Your task to perform on an android device: open app "ColorNote Notepad Notes" (install if not already installed) and enter user name: "unbridled@gmail.com" and password: "regularly" Image 0: 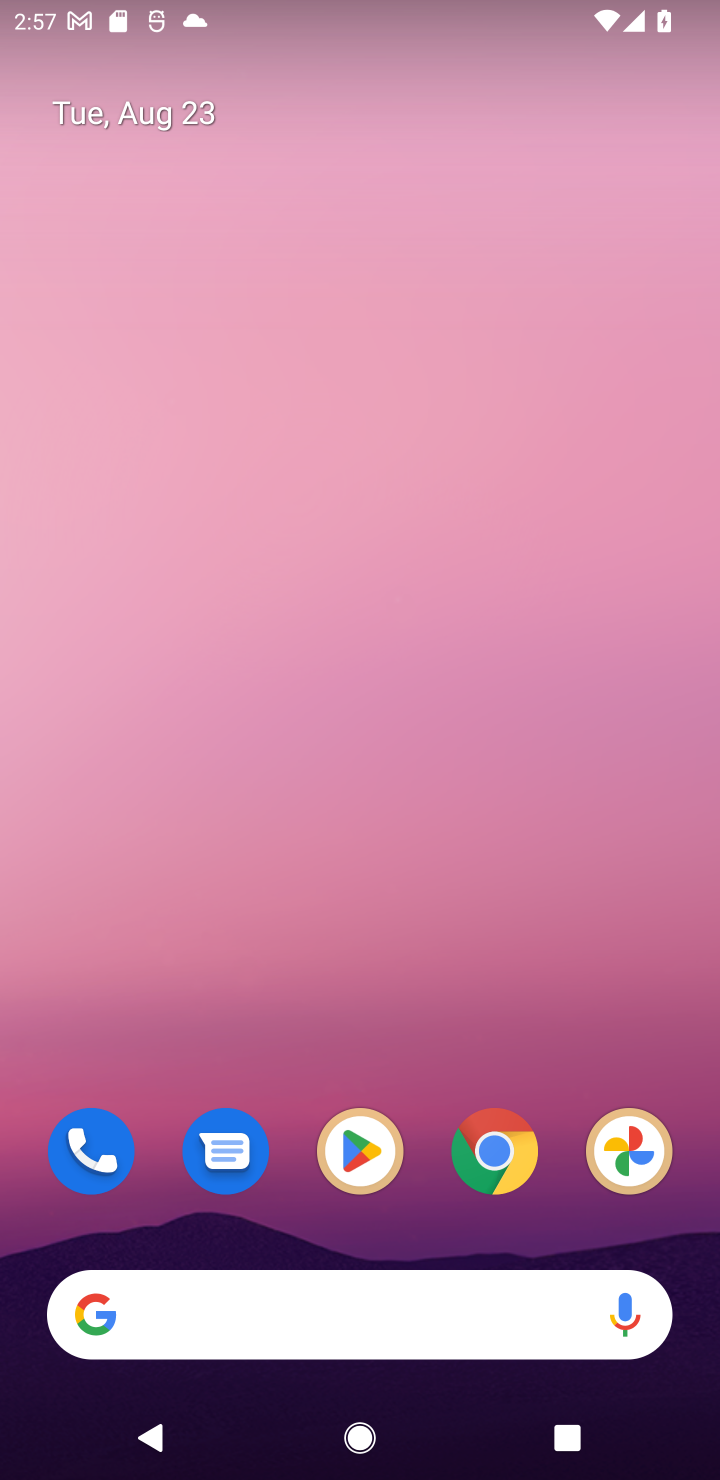
Step 0: click (357, 1156)
Your task to perform on an android device: open app "ColorNote Notepad Notes" (install if not already installed) and enter user name: "unbridled@gmail.com" and password: "regularly" Image 1: 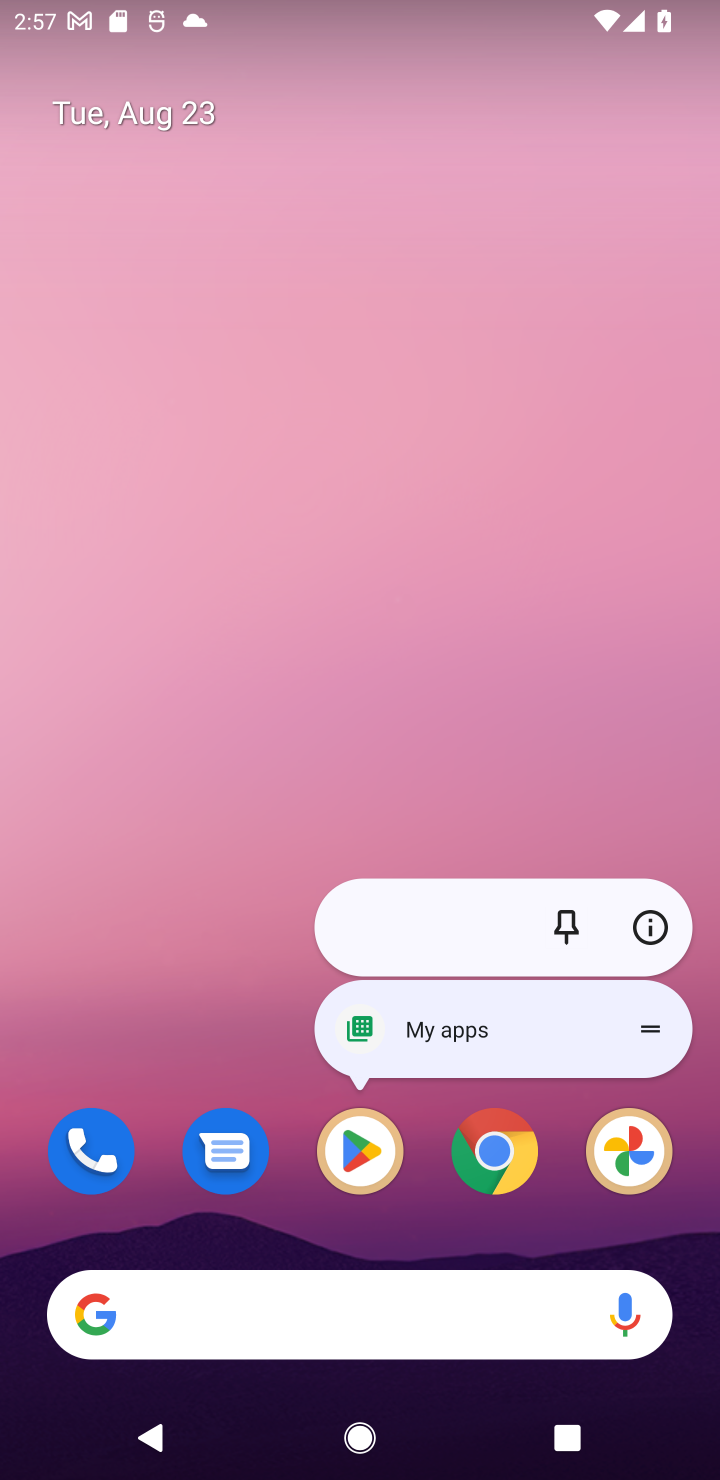
Step 1: click (357, 1156)
Your task to perform on an android device: open app "ColorNote Notepad Notes" (install if not already installed) and enter user name: "unbridled@gmail.com" and password: "regularly" Image 2: 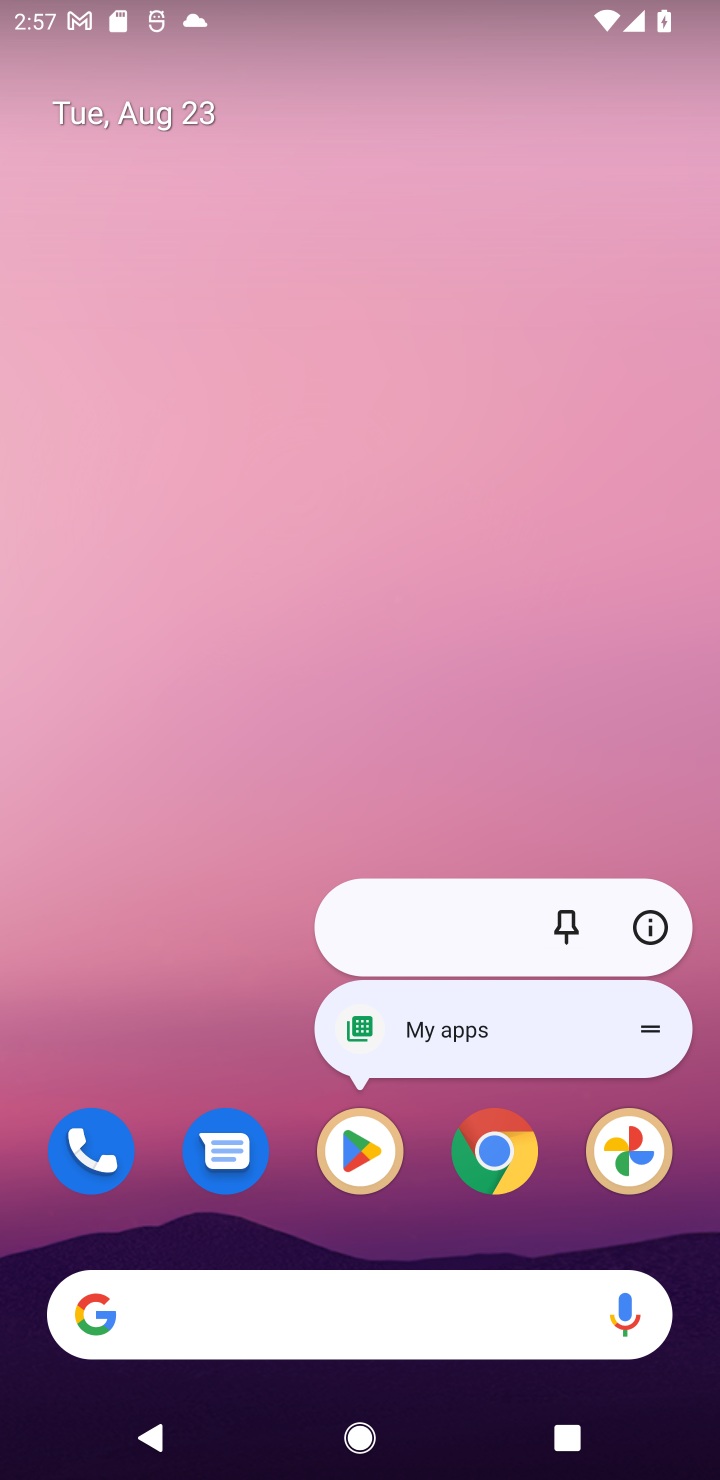
Step 2: click (357, 1160)
Your task to perform on an android device: open app "ColorNote Notepad Notes" (install if not already installed) and enter user name: "unbridled@gmail.com" and password: "regularly" Image 3: 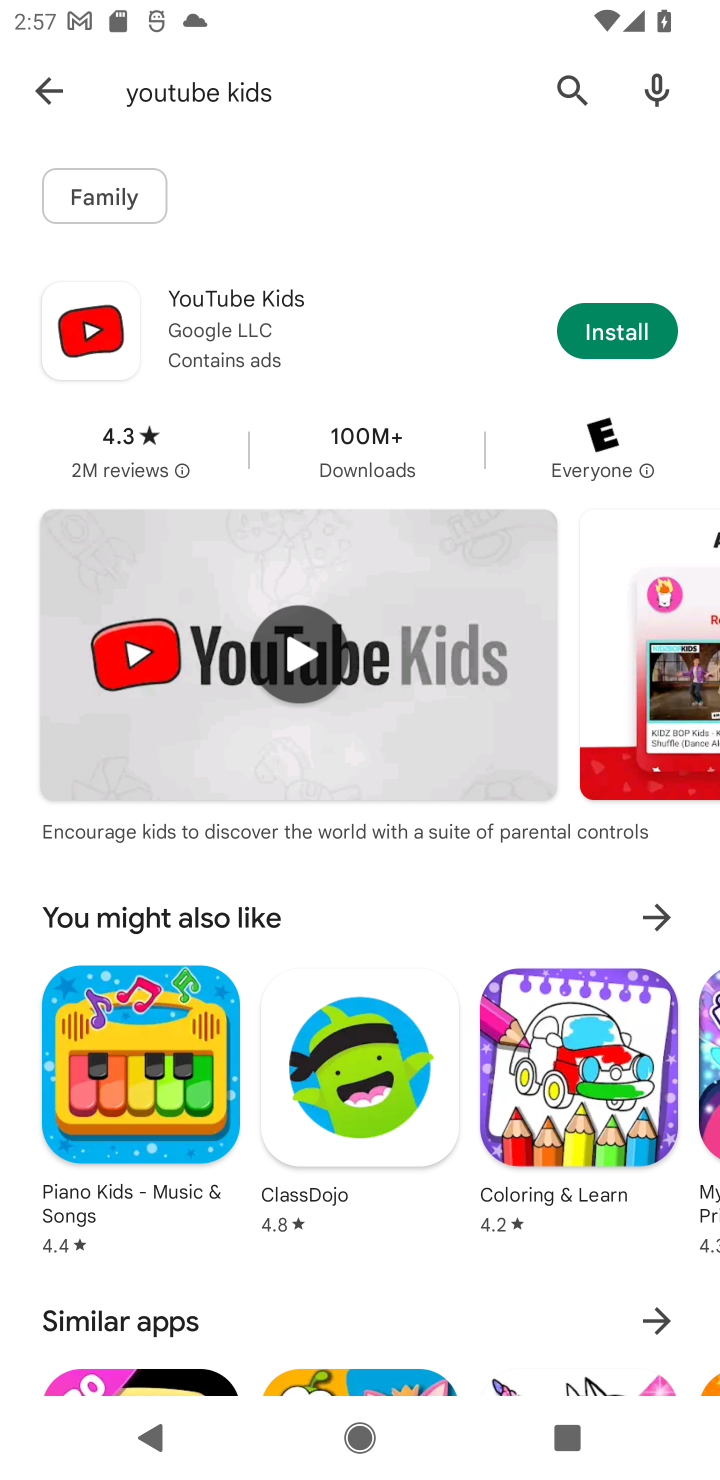
Step 3: click (572, 88)
Your task to perform on an android device: open app "ColorNote Notepad Notes" (install if not already installed) and enter user name: "unbridled@gmail.com" and password: "regularly" Image 4: 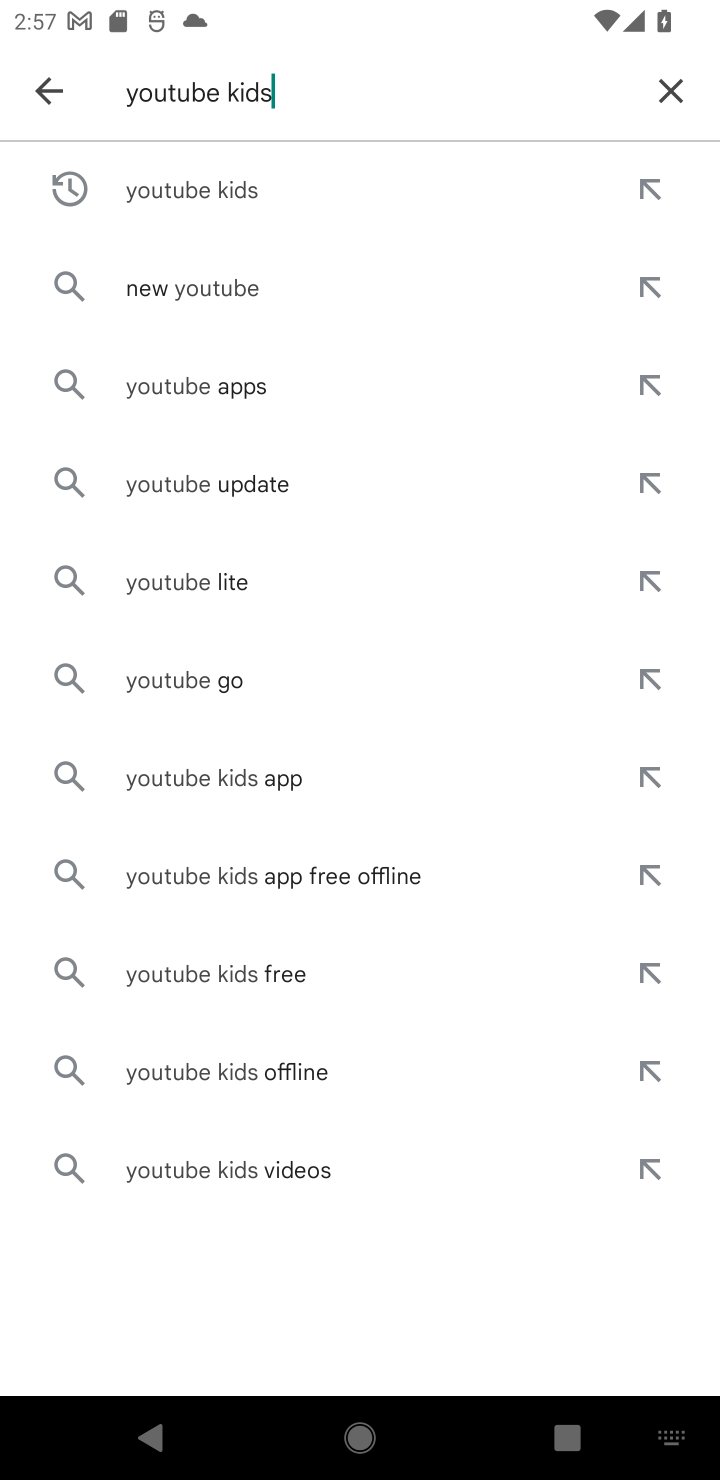
Step 4: click (664, 86)
Your task to perform on an android device: open app "ColorNote Notepad Notes" (install if not already installed) and enter user name: "unbridled@gmail.com" and password: "regularly" Image 5: 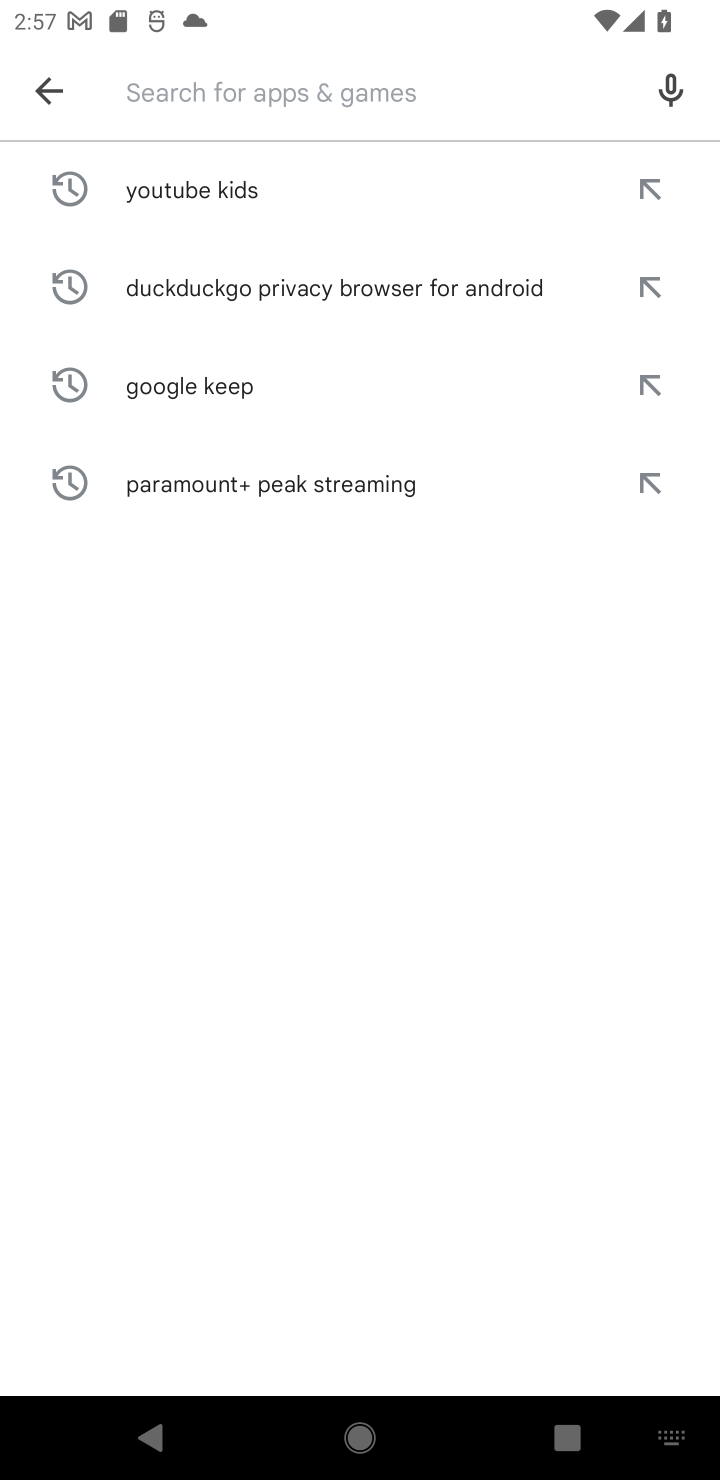
Step 5: type "ColorNote Notepad Notes"
Your task to perform on an android device: open app "ColorNote Notepad Notes" (install if not already installed) and enter user name: "unbridled@gmail.com" and password: "regularly" Image 6: 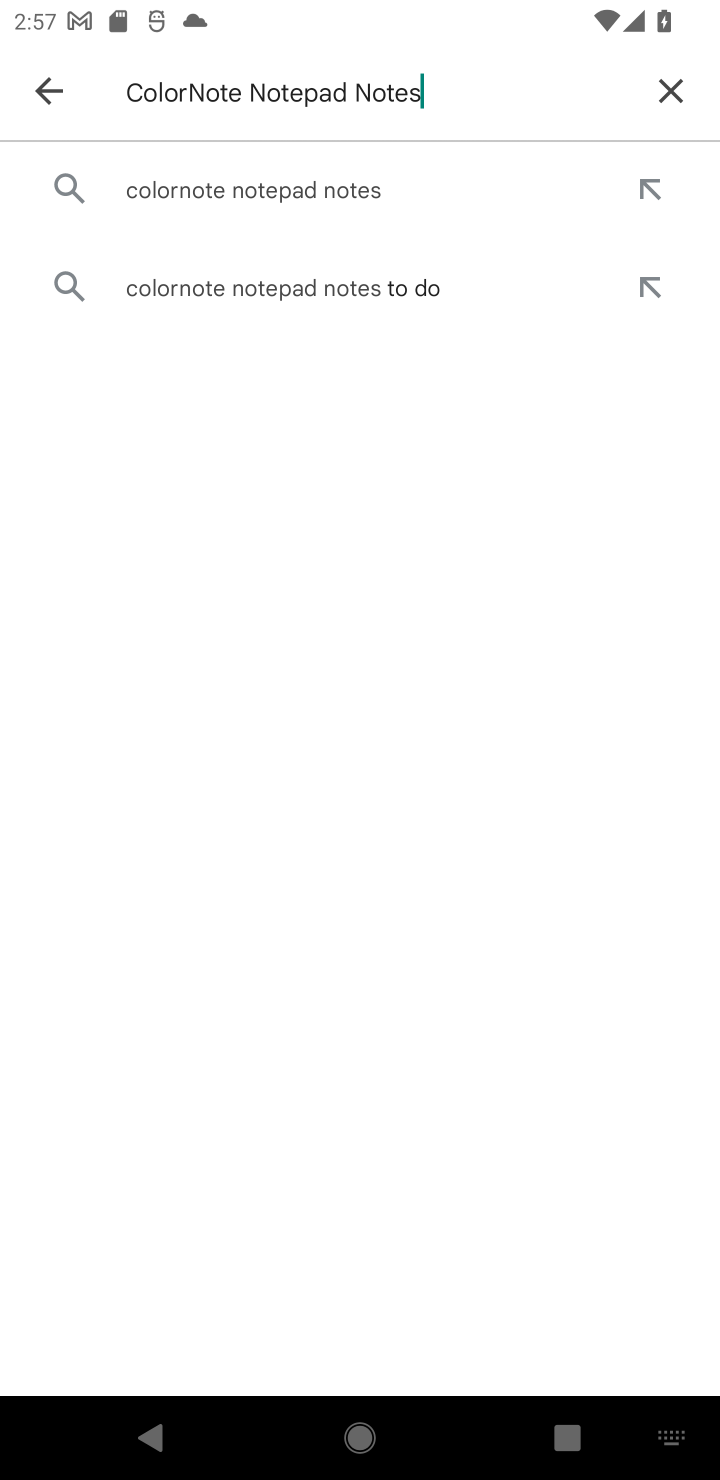
Step 6: click (213, 186)
Your task to perform on an android device: open app "ColorNote Notepad Notes" (install if not already installed) and enter user name: "unbridled@gmail.com" and password: "regularly" Image 7: 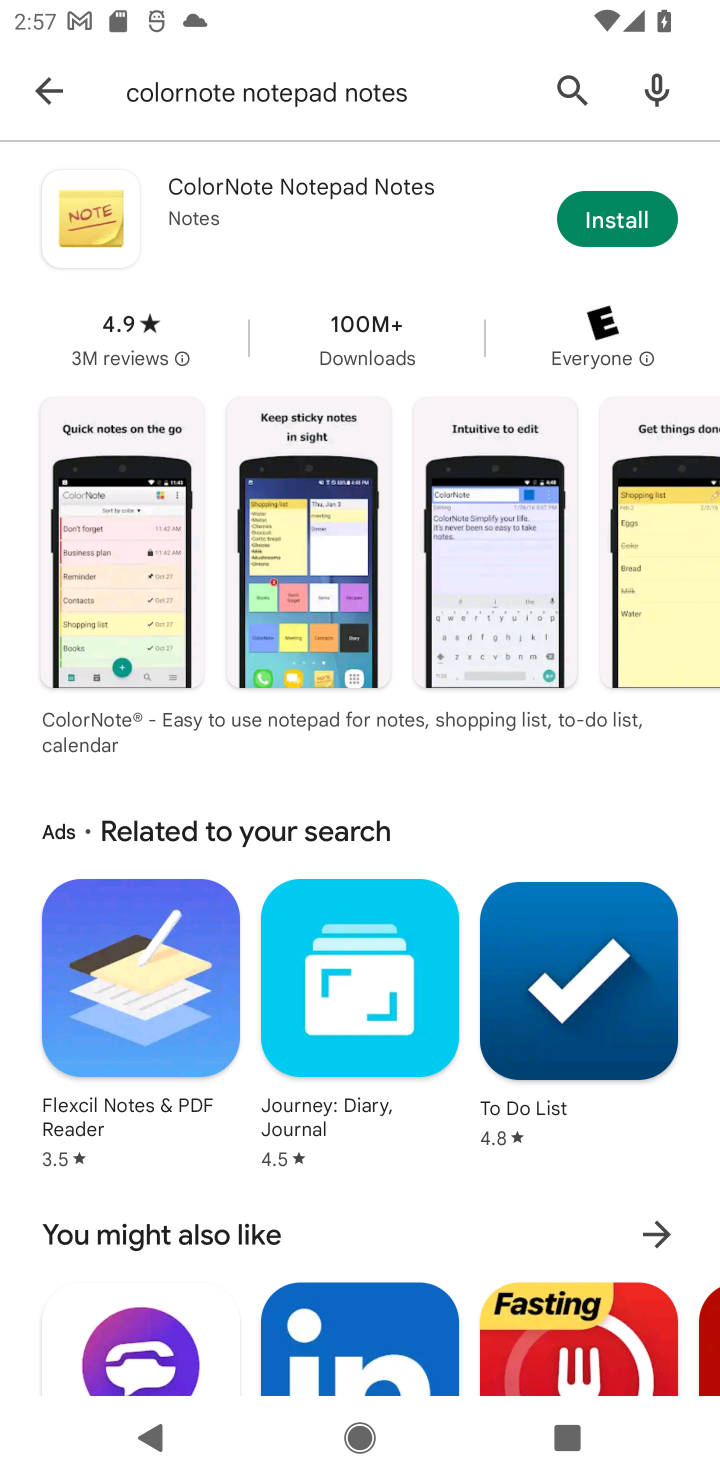
Step 7: click (644, 209)
Your task to perform on an android device: open app "ColorNote Notepad Notes" (install if not already installed) and enter user name: "unbridled@gmail.com" and password: "regularly" Image 8: 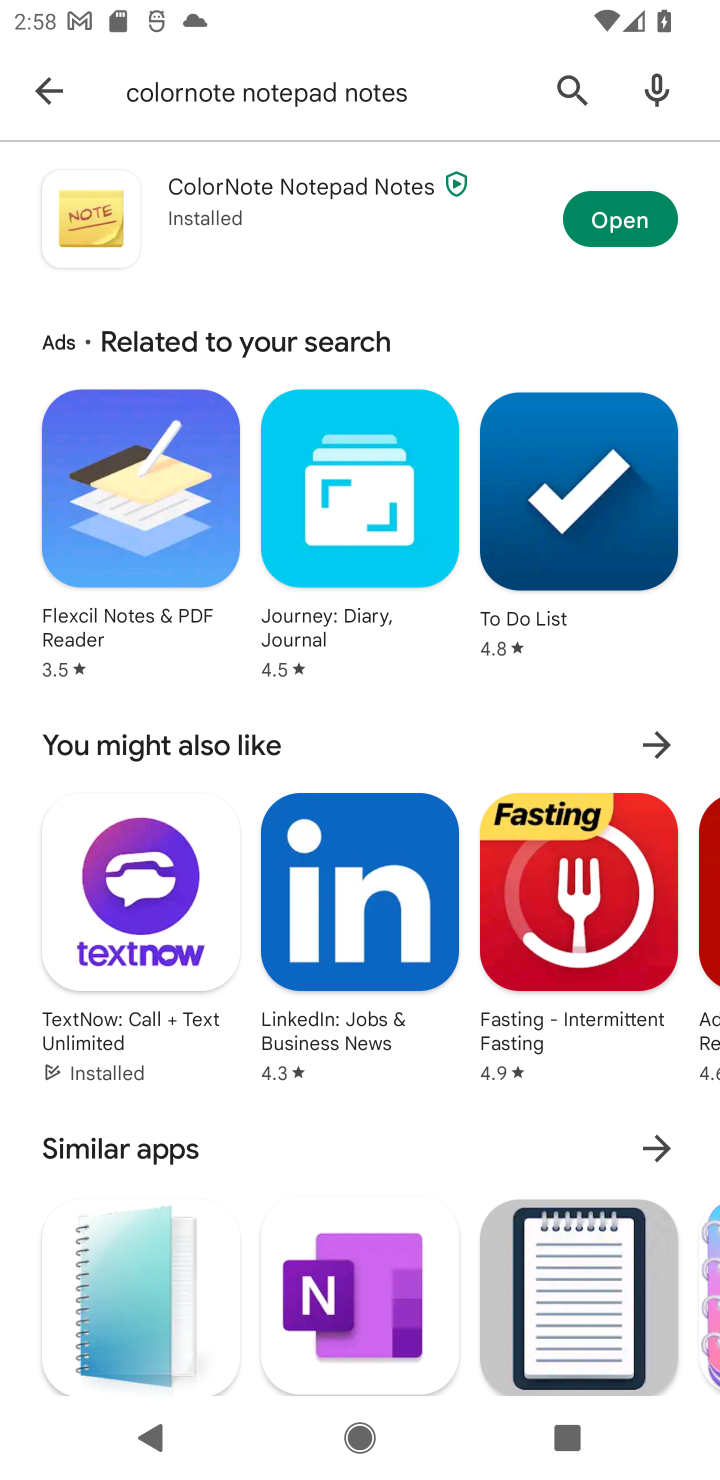
Step 8: click (634, 220)
Your task to perform on an android device: open app "ColorNote Notepad Notes" (install if not already installed) and enter user name: "unbridled@gmail.com" and password: "regularly" Image 9: 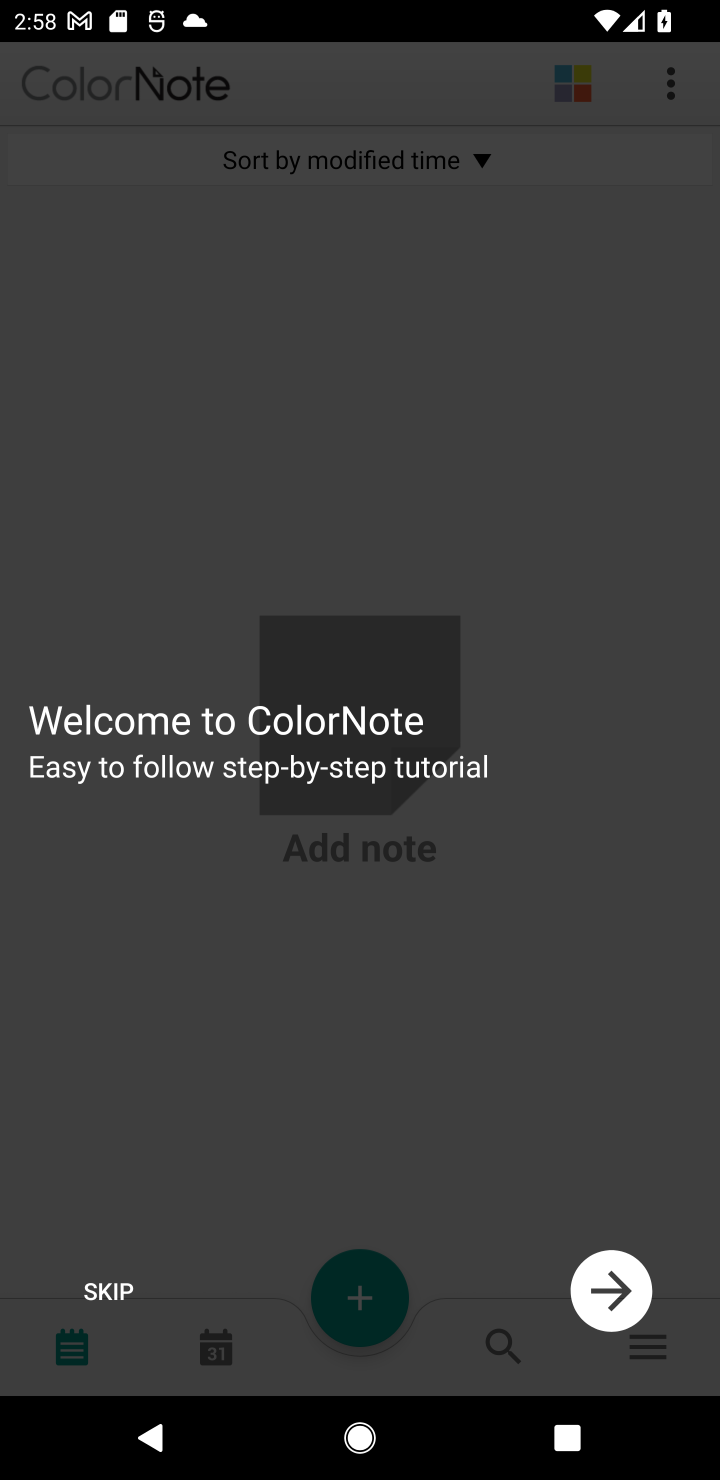
Step 9: click (112, 1284)
Your task to perform on an android device: open app "ColorNote Notepad Notes" (install if not already installed) and enter user name: "unbridled@gmail.com" and password: "regularly" Image 10: 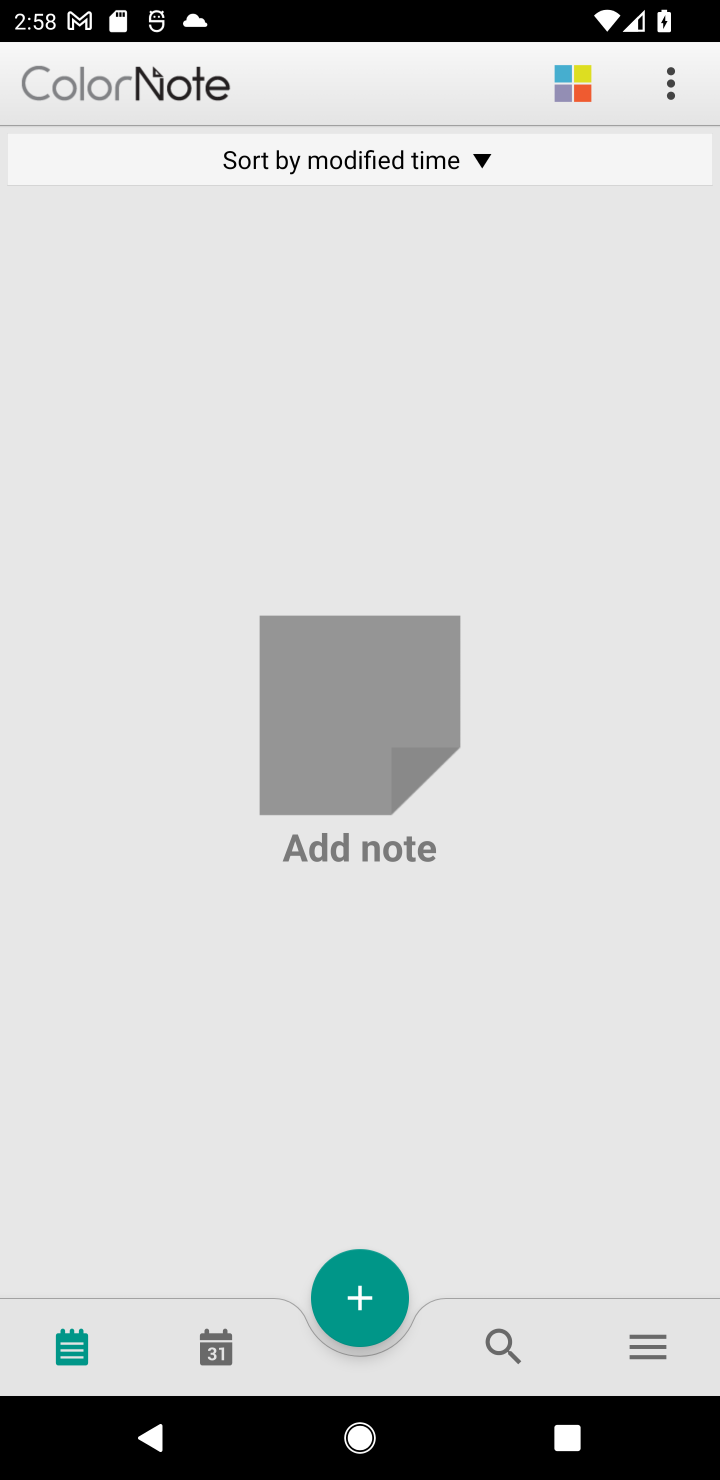
Step 10: task complete